Your task to perform on an android device: install app "McDonald's" Image 0: 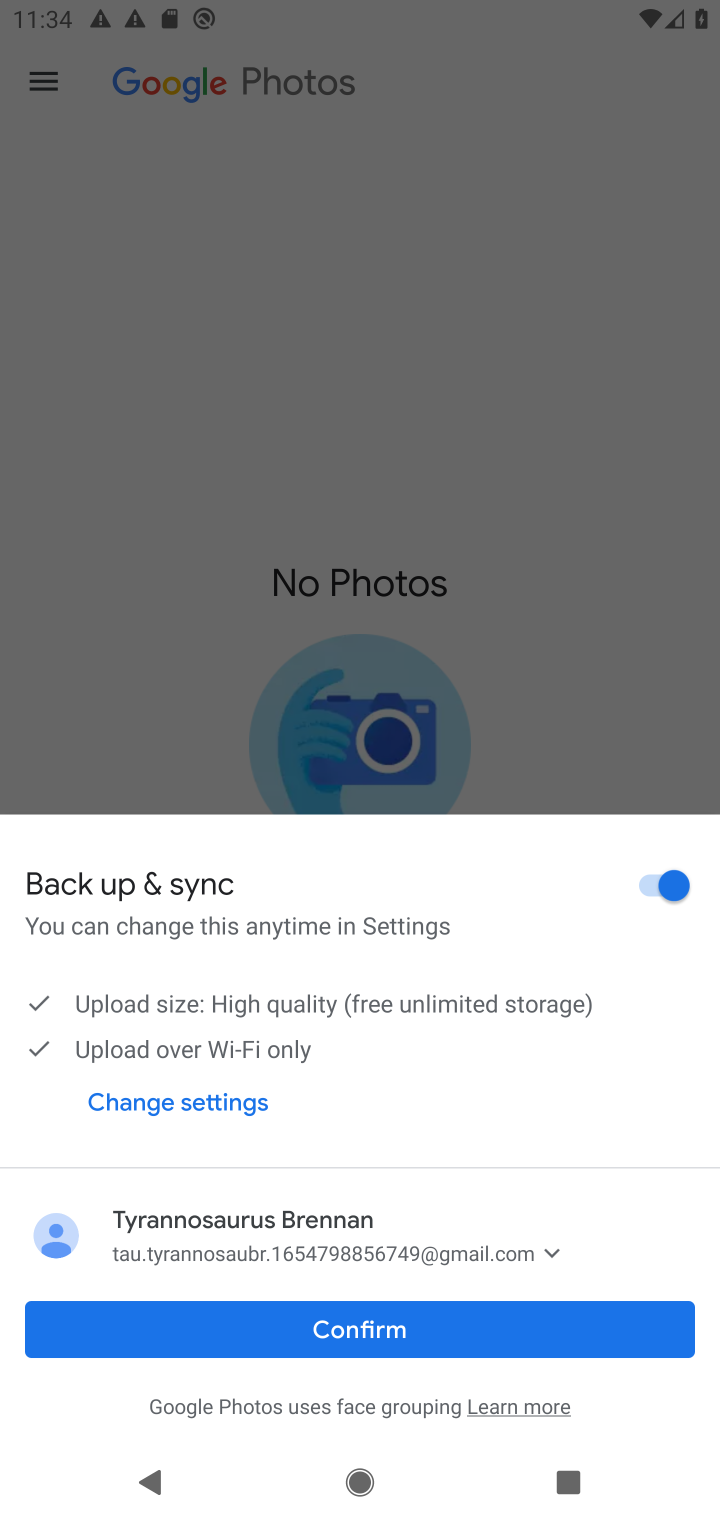
Step 0: press home button
Your task to perform on an android device: install app "McDonald's" Image 1: 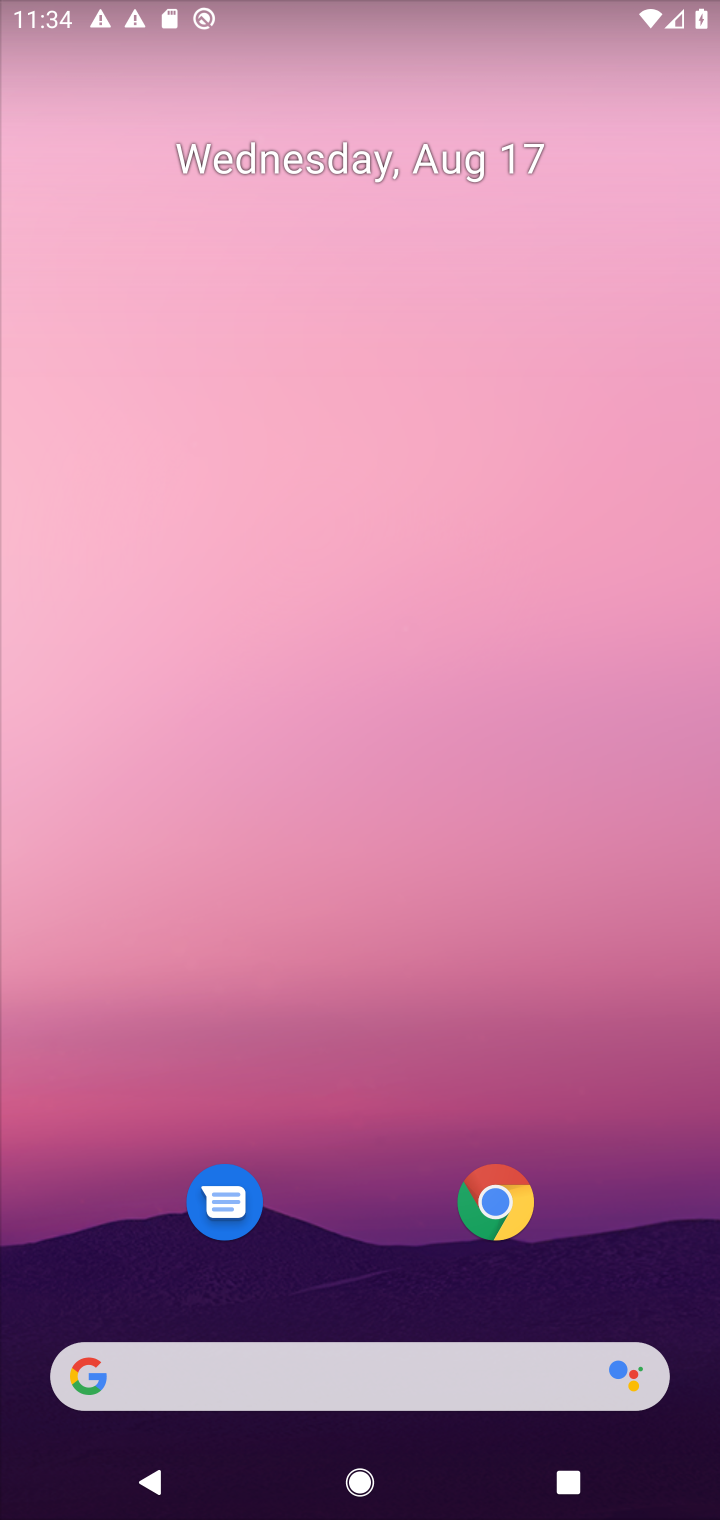
Step 1: drag from (322, 1306) to (153, 195)
Your task to perform on an android device: install app "McDonald's" Image 2: 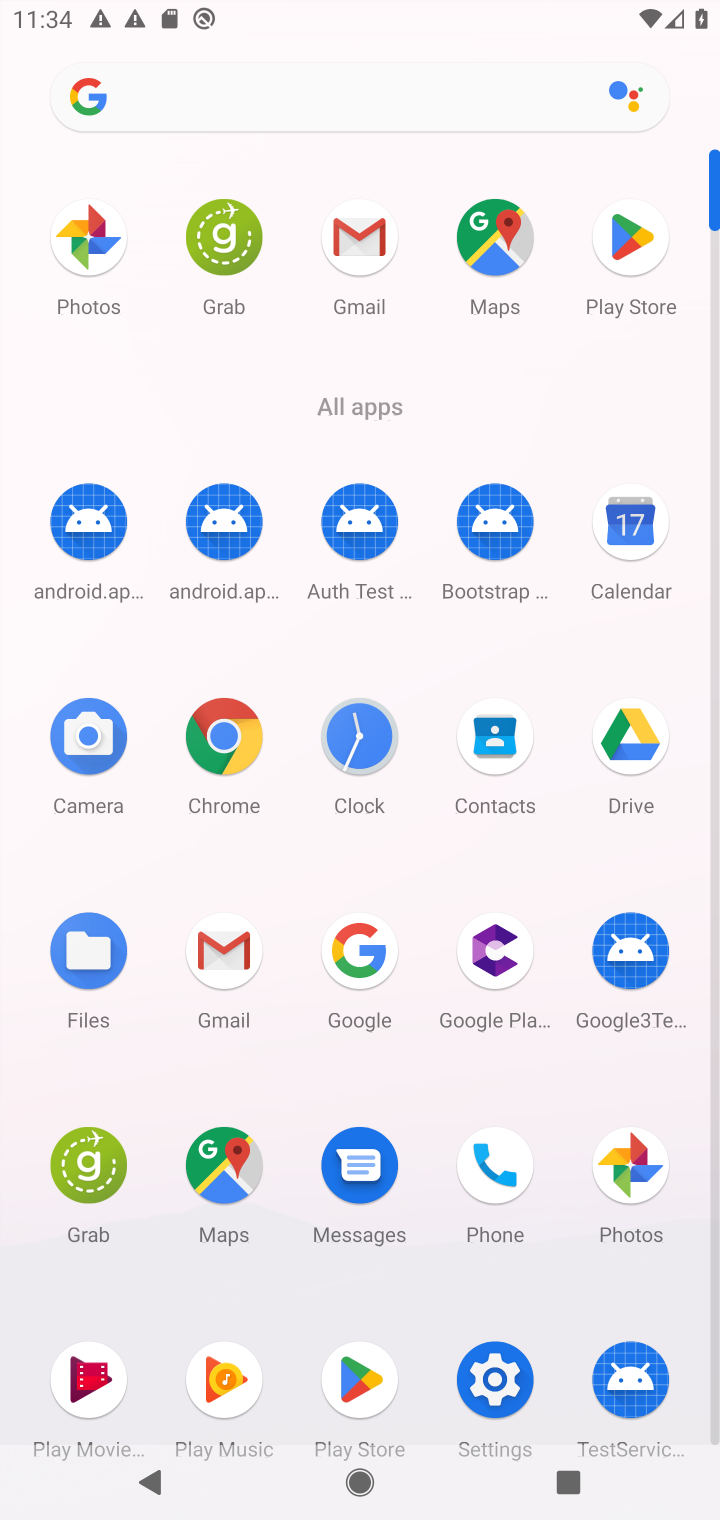
Step 2: click (386, 1376)
Your task to perform on an android device: install app "McDonald's" Image 3: 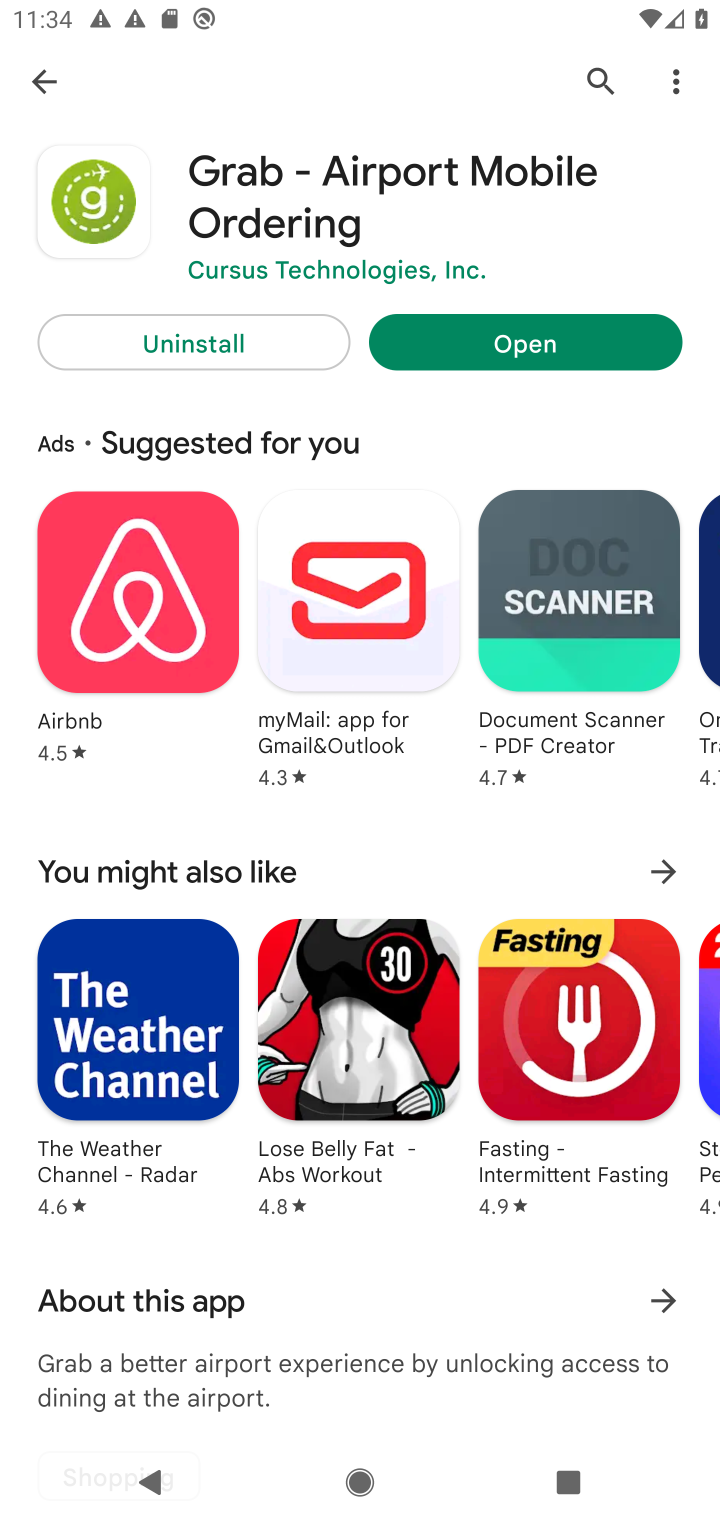
Step 3: click (48, 80)
Your task to perform on an android device: install app "McDonald's" Image 4: 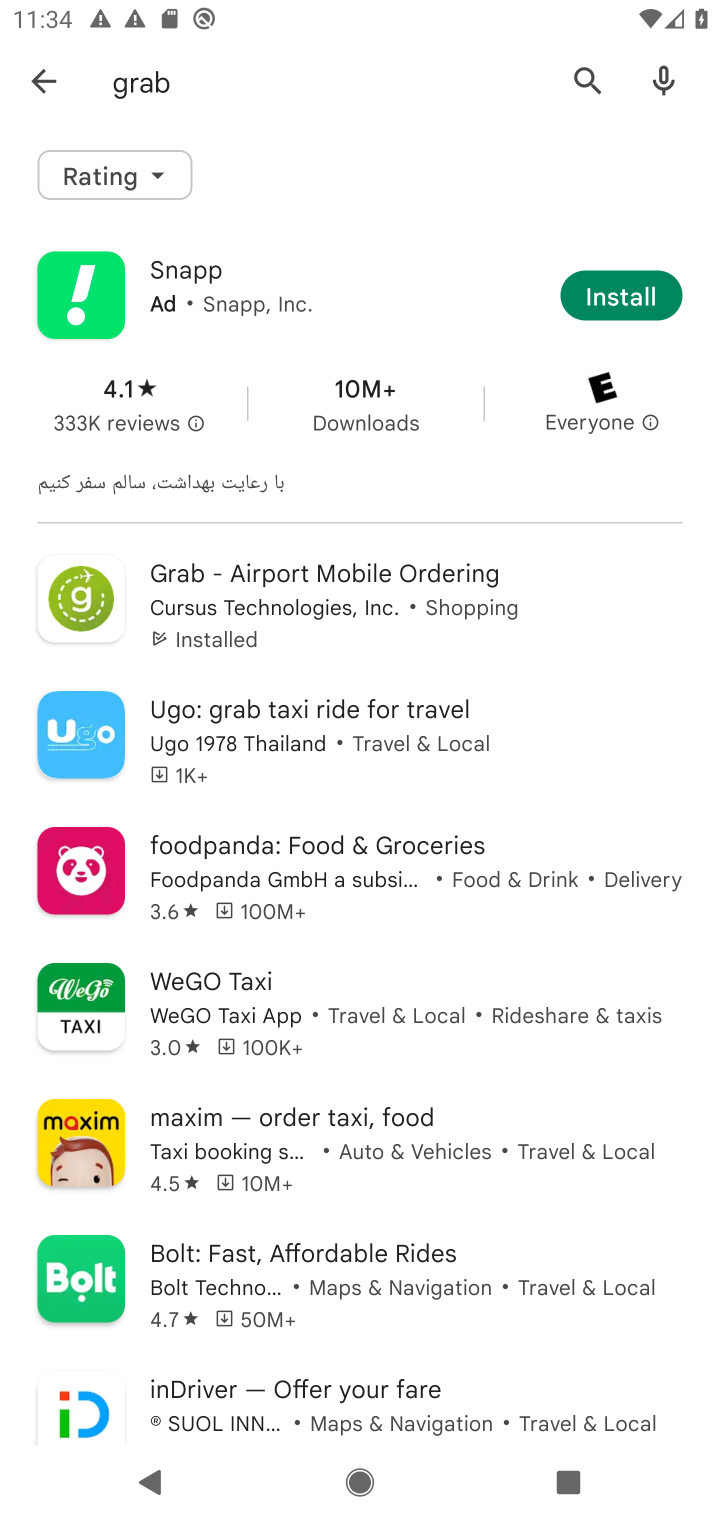
Step 4: click (25, 91)
Your task to perform on an android device: install app "McDonald's" Image 5: 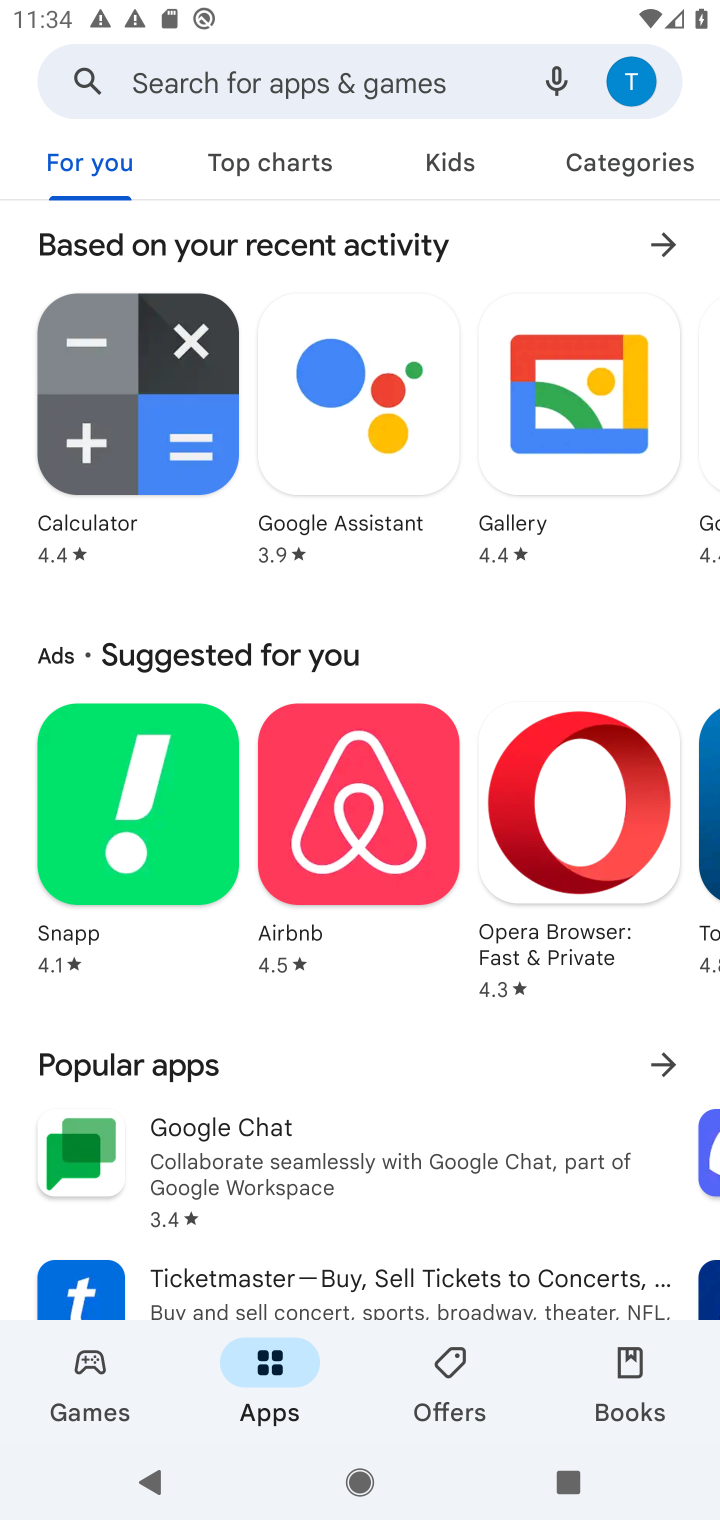
Step 5: click (387, 78)
Your task to perform on an android device: install app "McDonald's" Image 6: 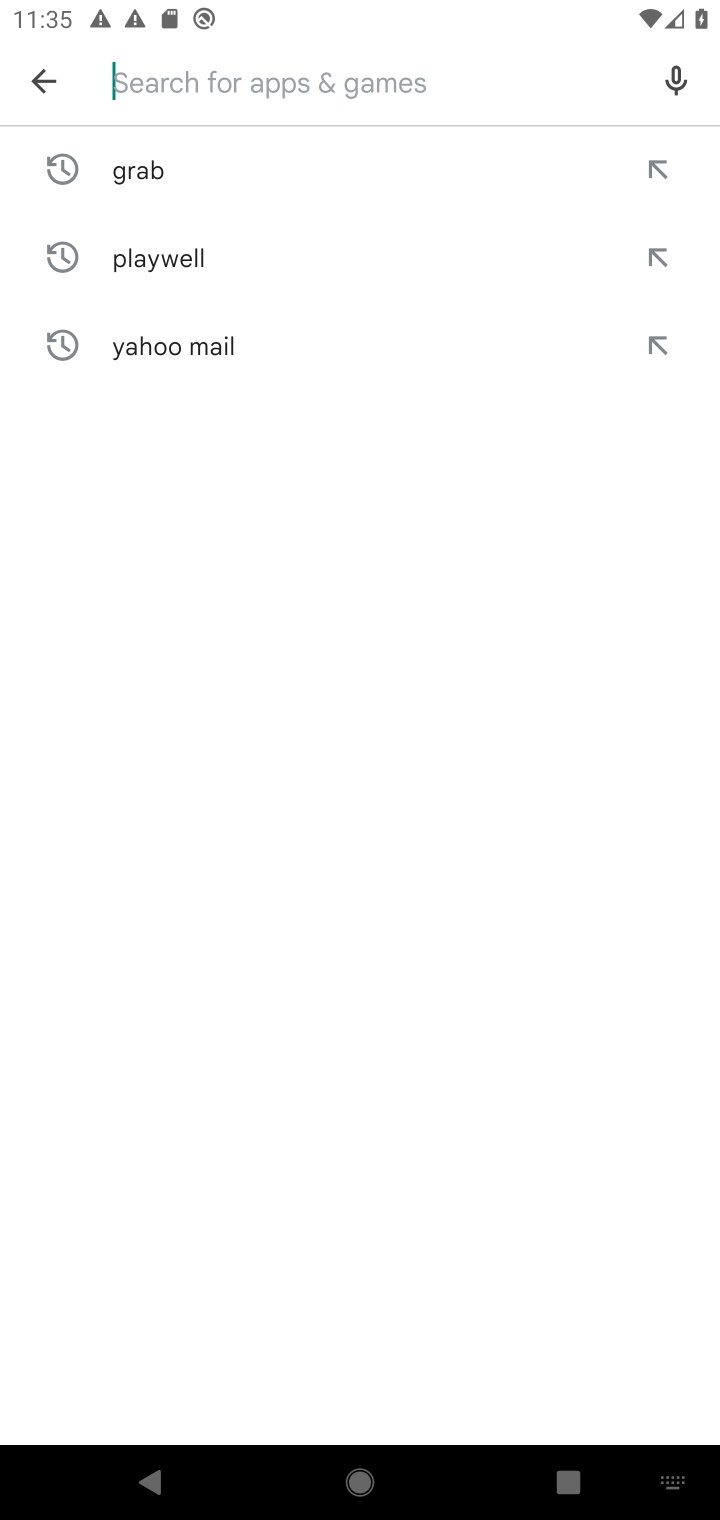
Step 6: type "McDonald's"
Your task to perform on an android device: install app "McDonald's" Image 7: 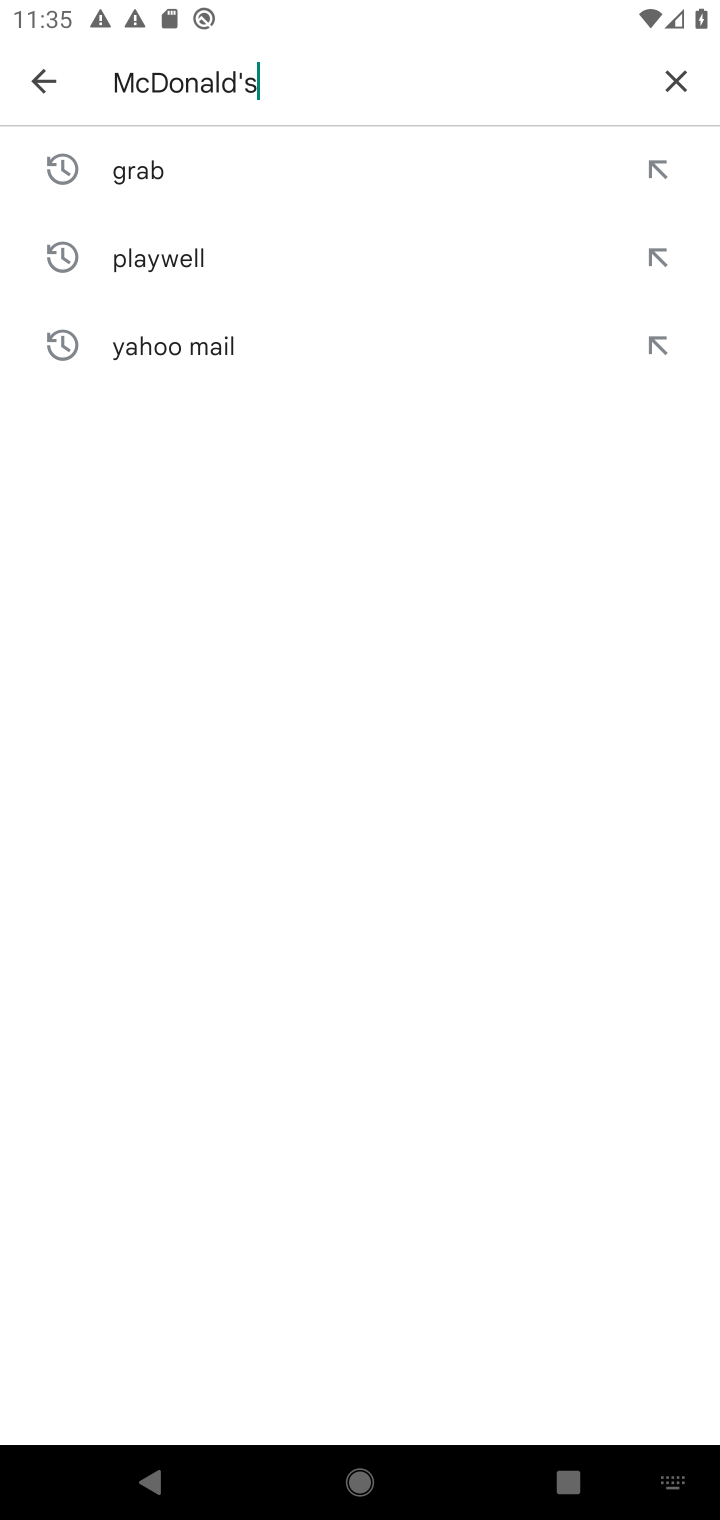
Step 7: type ""
Your task to perform on an android device: install app "McDonald's" Image 8: 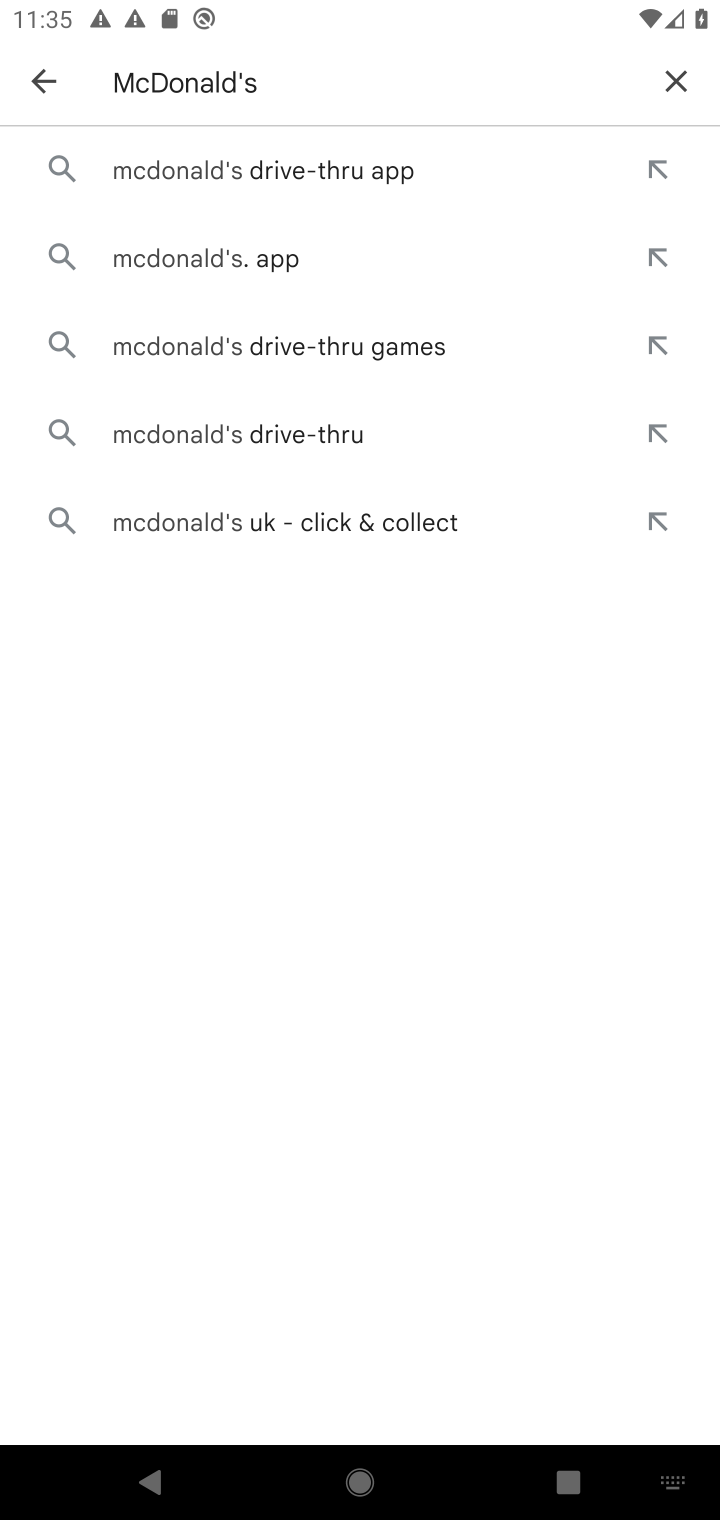
Step 8: click (255, 254)
Your task to perform on an android device: install app "McDonald's" Image 9: 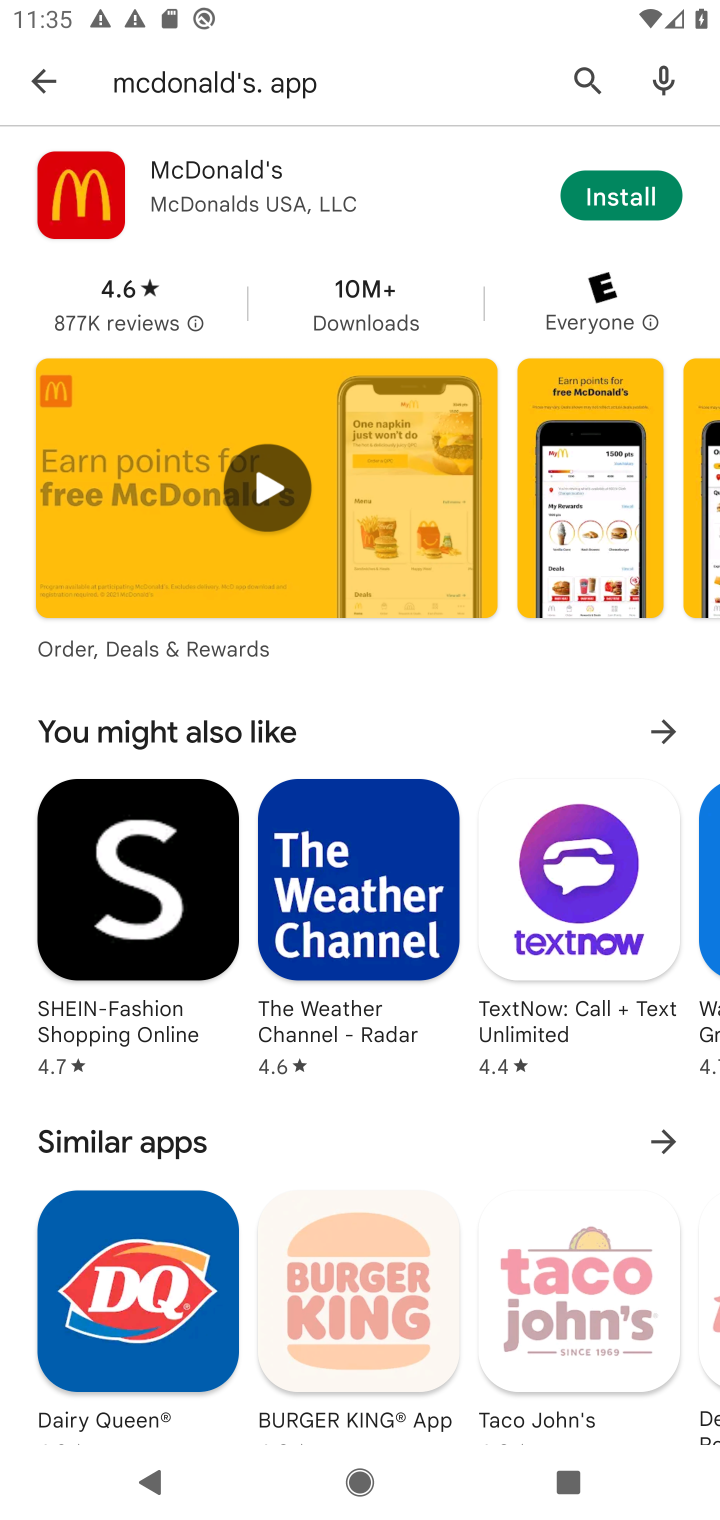
Step 9: click (611, 203)
Your task to perform on an android device: install app "McDonald's" Image 10: 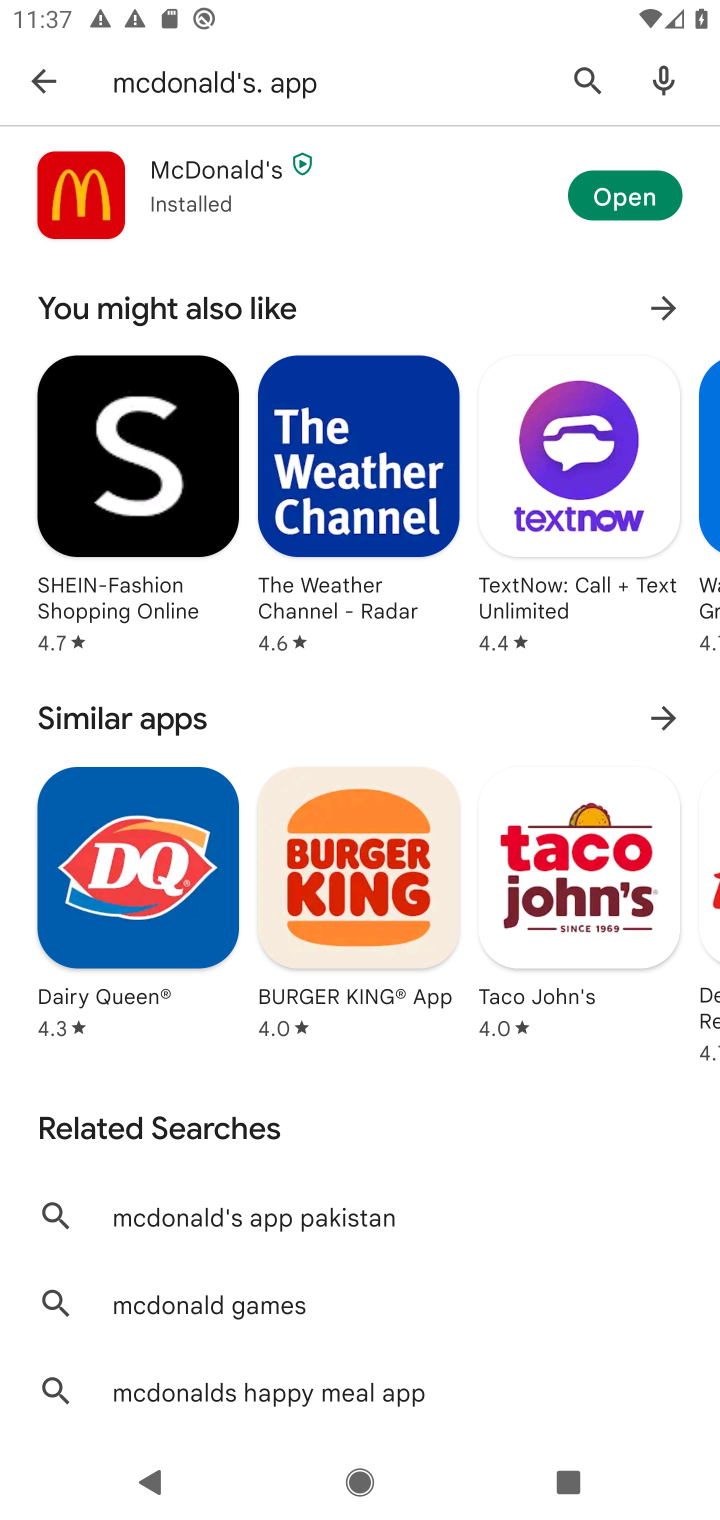
Step 10: click (596, 205)
Your task to perform on an android device: install app "McDonald's" Image 11: 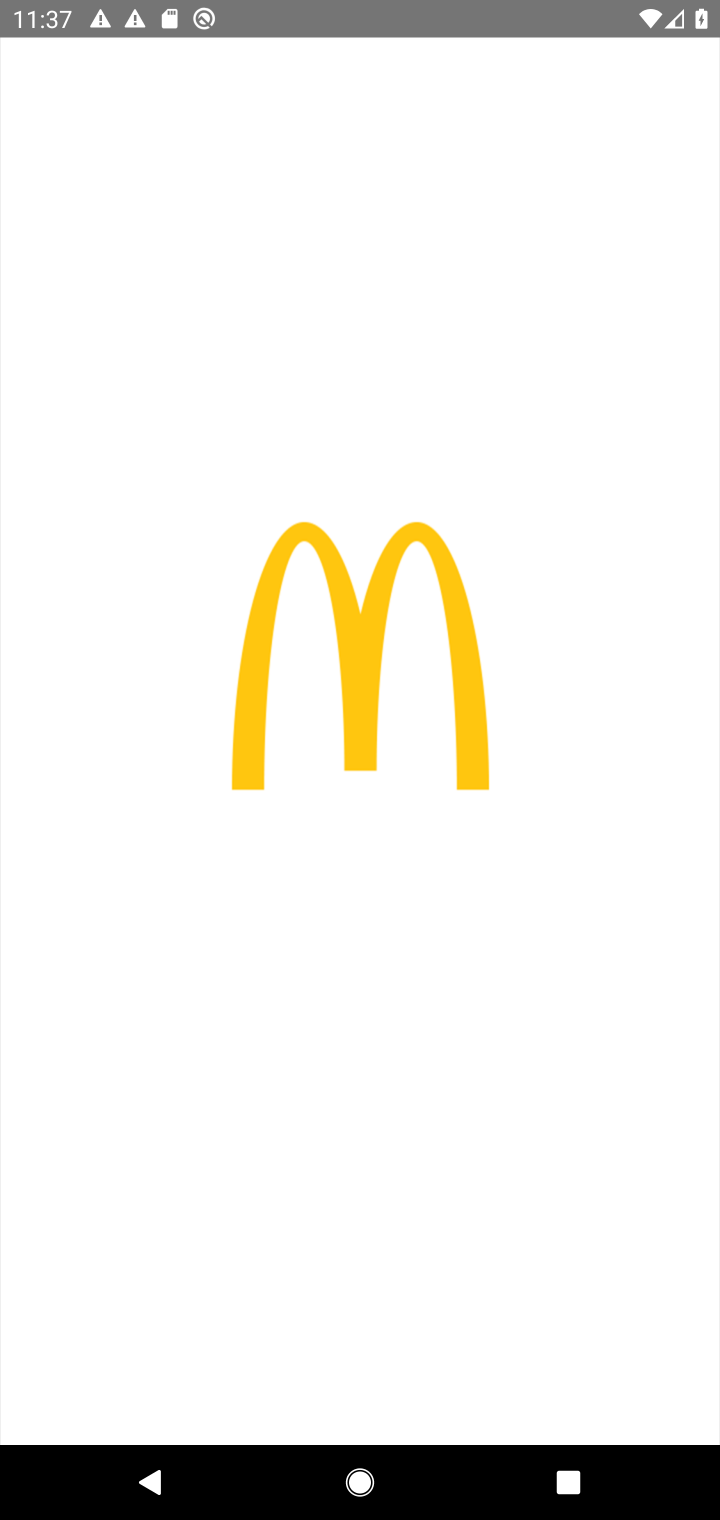
Step 11: task complete